Your task to perform on an android device: Open notification settings Image 0: 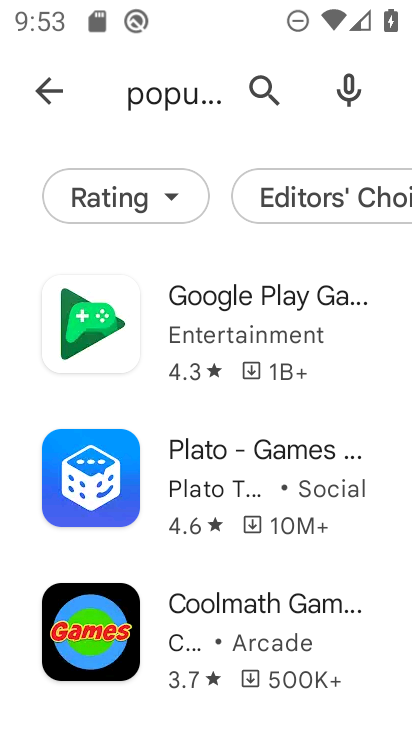
Step 0: press home button
Your task to perform on an android device: Open notification settings Image 1: 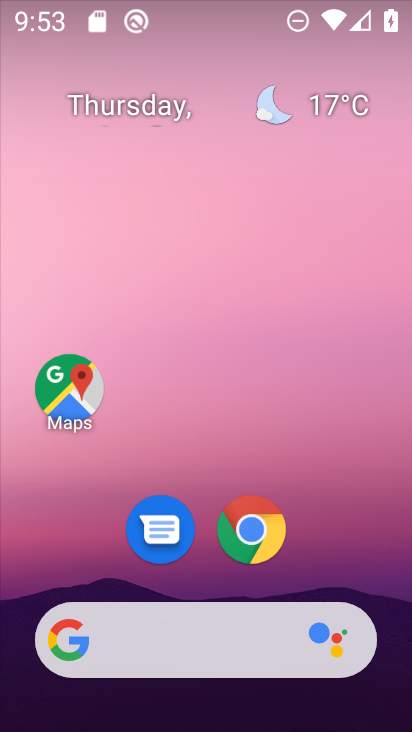
Step 1: drag from (395, 512) to (374, 113)
Your task to perform on an android device: Open notification settings Image 2: 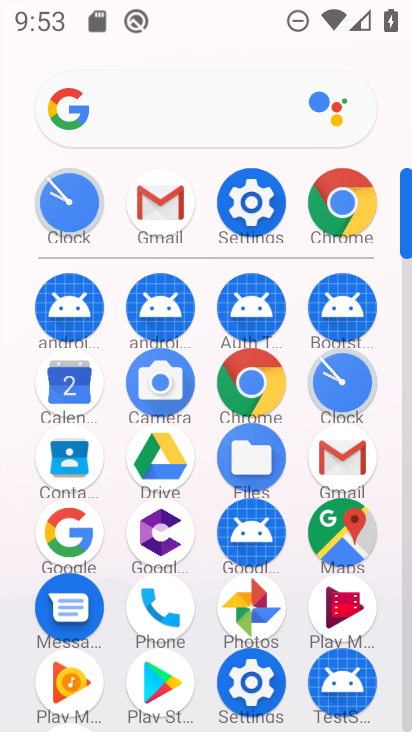
Step 2: click (239, 678)
Your task to perform on an android device: Open notification settings Image 3: 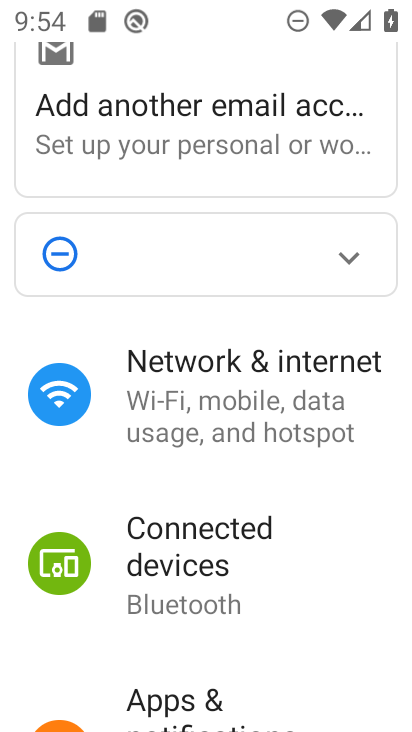
Step 3: drag from (288, 621) to (269, 309)
Your task to perform on an android device: Open notification settings Image 4: 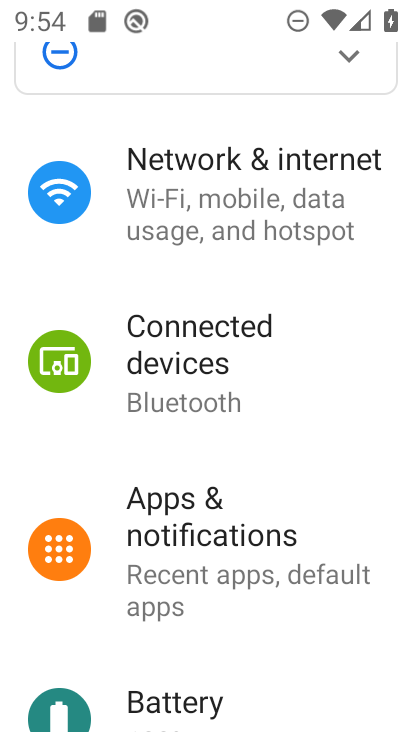
Step 4: click (181, 537)
Your task to perform on an android device: Open notification settings Image 5: 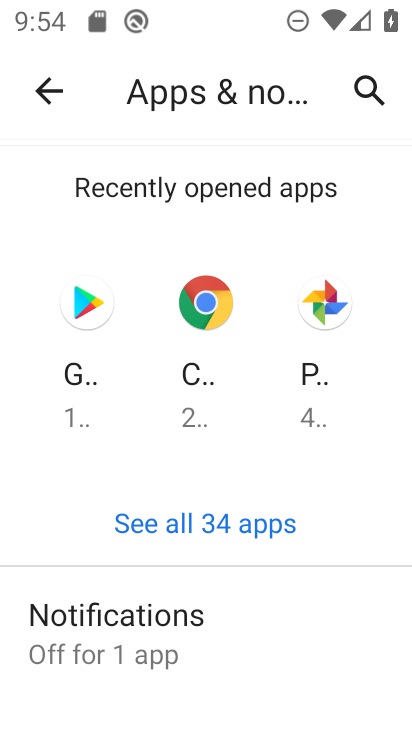
Step 5: click (108, 633)
Your task to perform on an android device: Open notification settings Image 6: 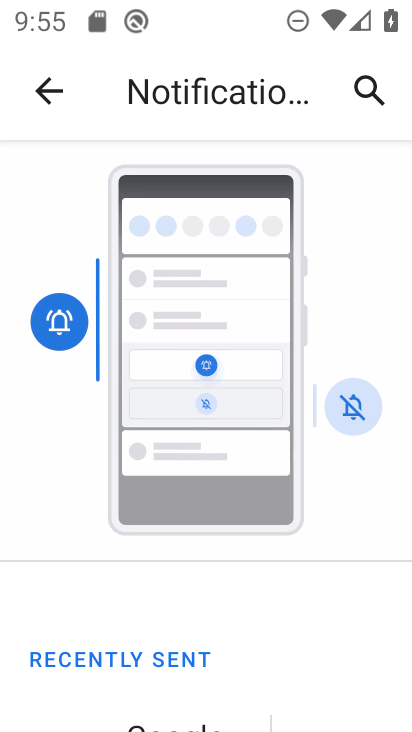
Step 6: task complete